Your task to perform on an android device: Go to Google Image 0: 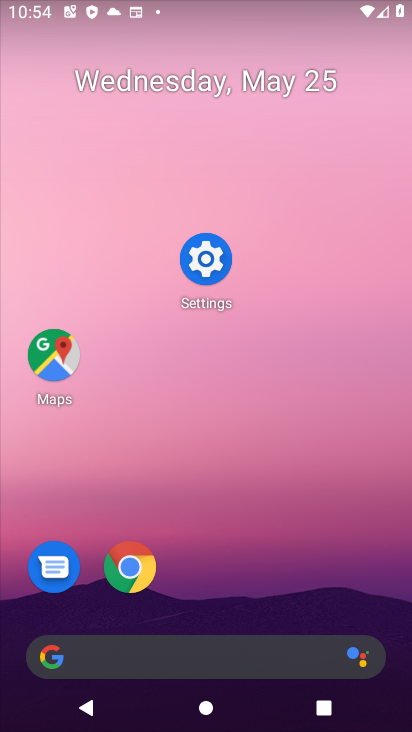
Step 0: click (111, 572)
Your task to perform on an android device: Go to Google Image 1: 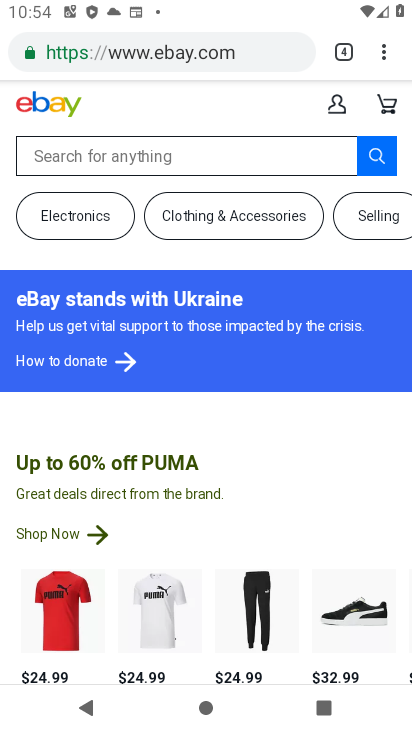
Step 1: click (272, 58)
Your task to perform on an android device: Go to Google Image 2: 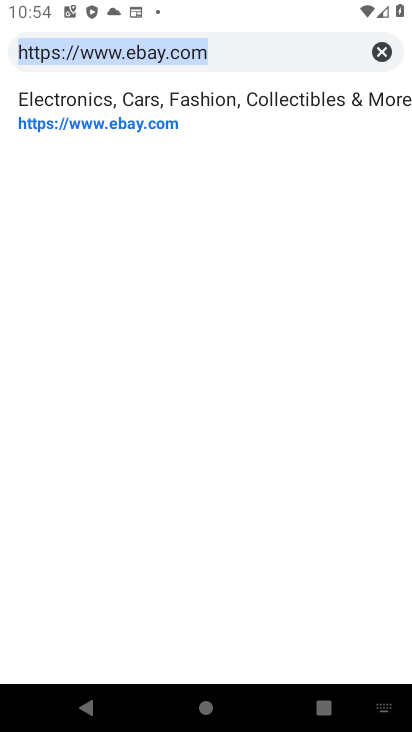
Step 2: type "google.com"
Your task to perform on an android device: Go to Google Image 3: 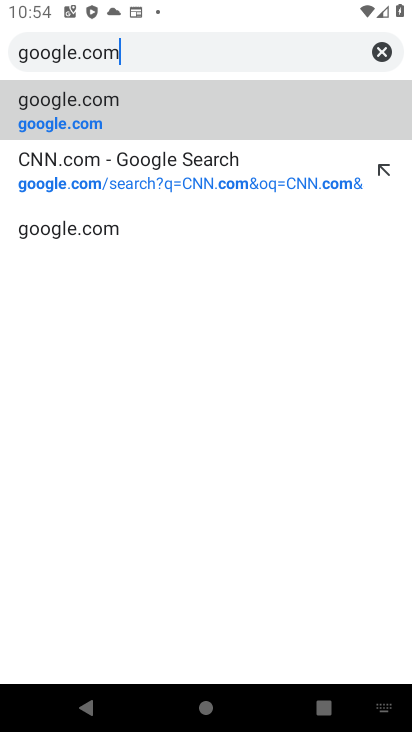
Step 3: click (173, 130)
Your task to perform on an android device: Go to Google Image 4: 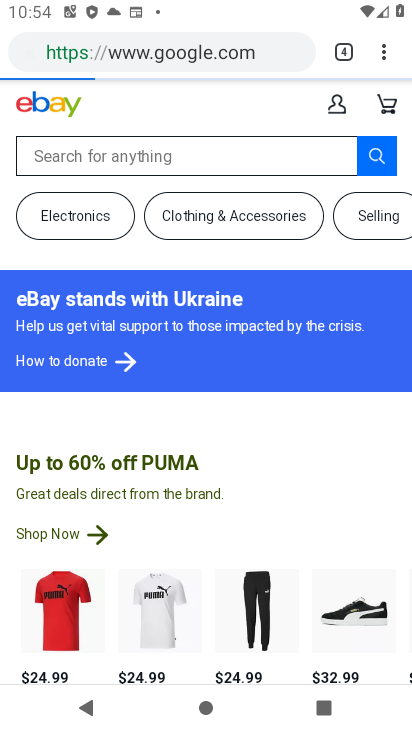
Step 4: task complete